Your task to perform on an android device: Show the shopping cart on newegg. Image 0: 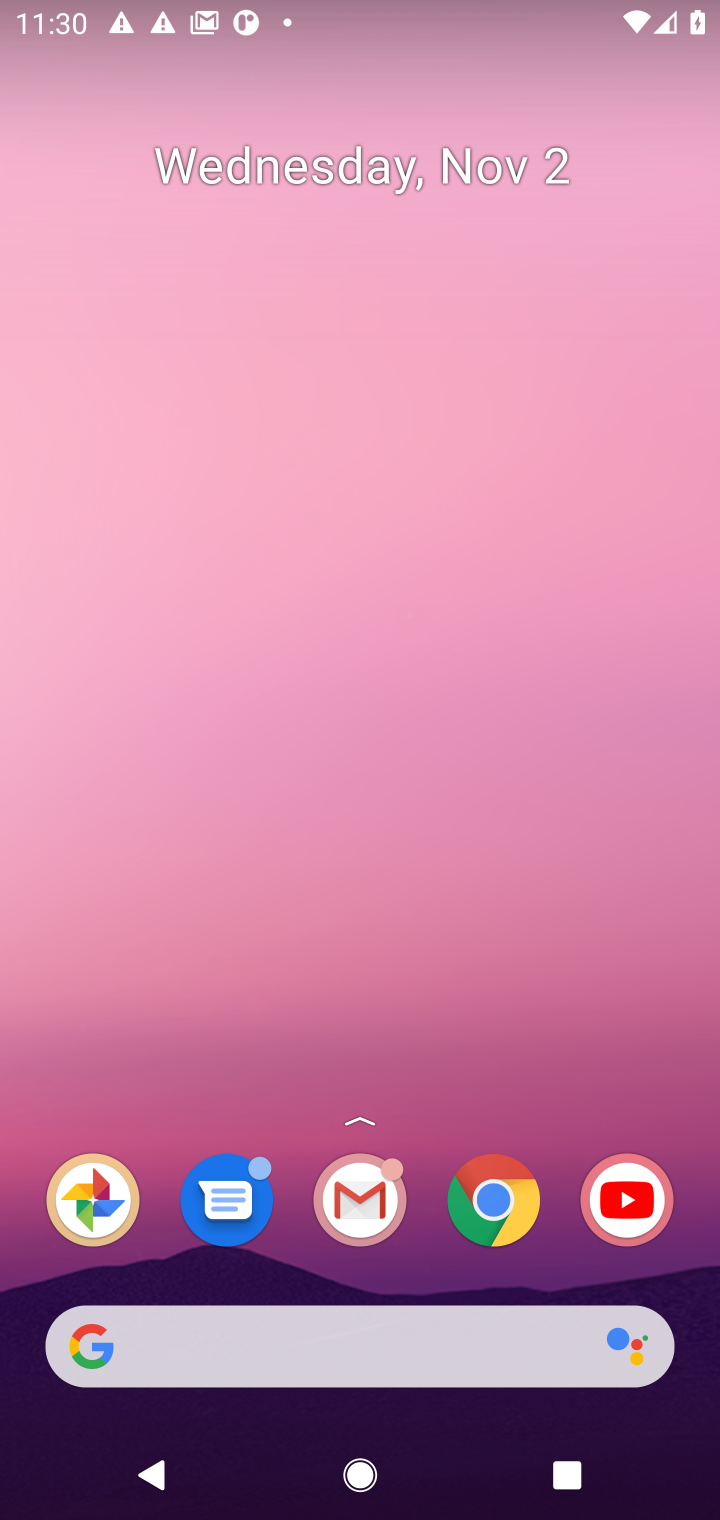
Step 0: click (499, 1188)
Your task to perform on an android device: Show the shopping cart on newegg. Image 1: 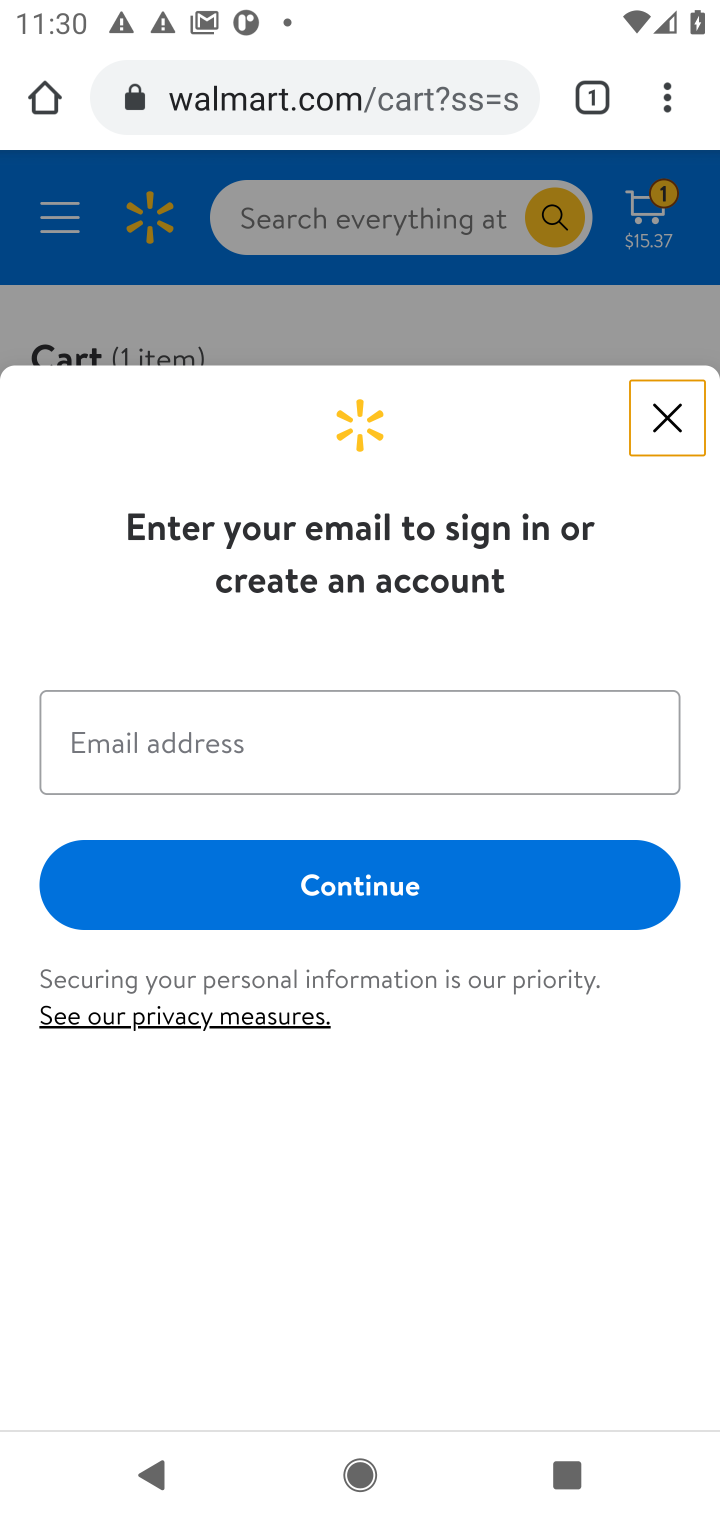
Step 1: click (56, 111)
Your task to perform on an android device: Show the shopping cart on newegg. Image 2: 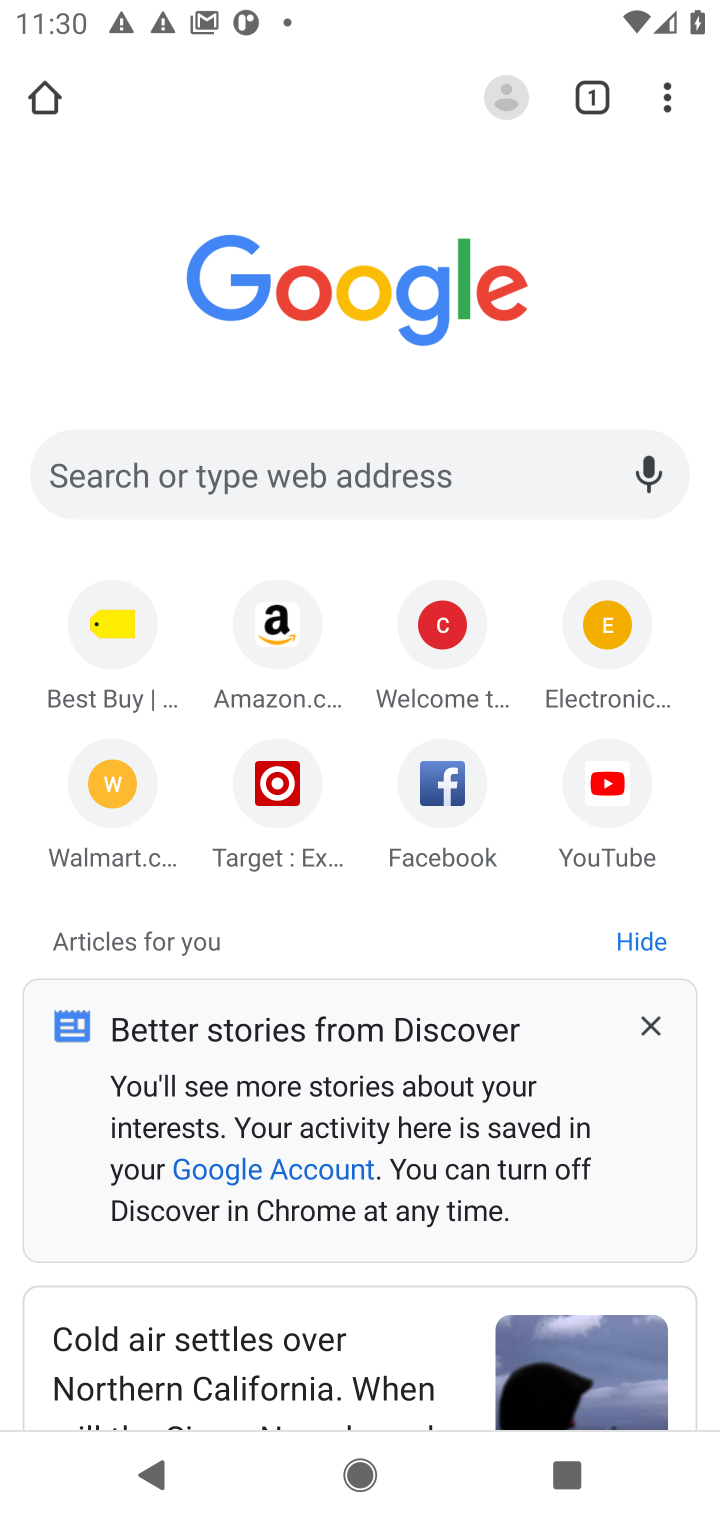
Step 2: click (524, 462)
Your task to perform on an android device: Show the shopping cart on newegg. Image 3: 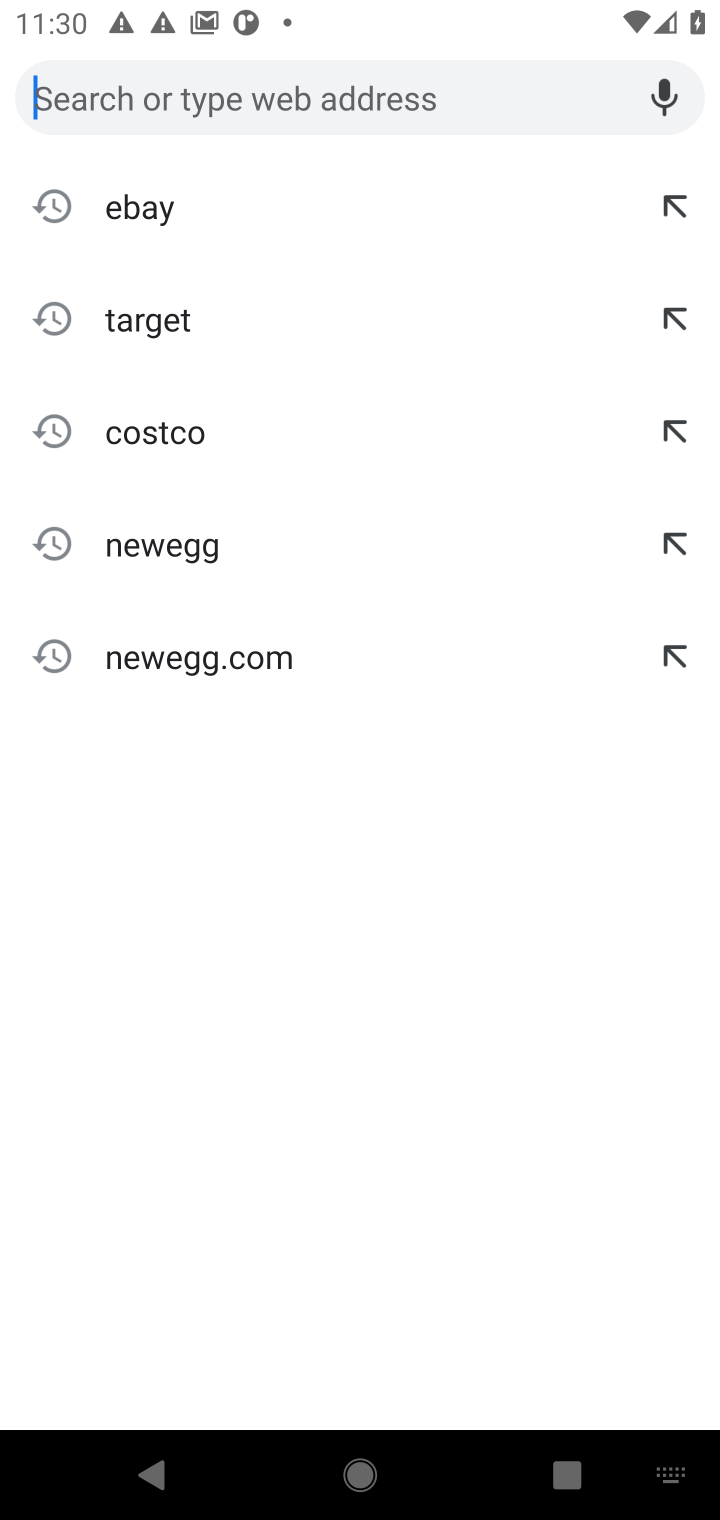
Step 3: click (291, 667)
Your task to perform on an android device: Show the shopping cart on newegg. Image 4: 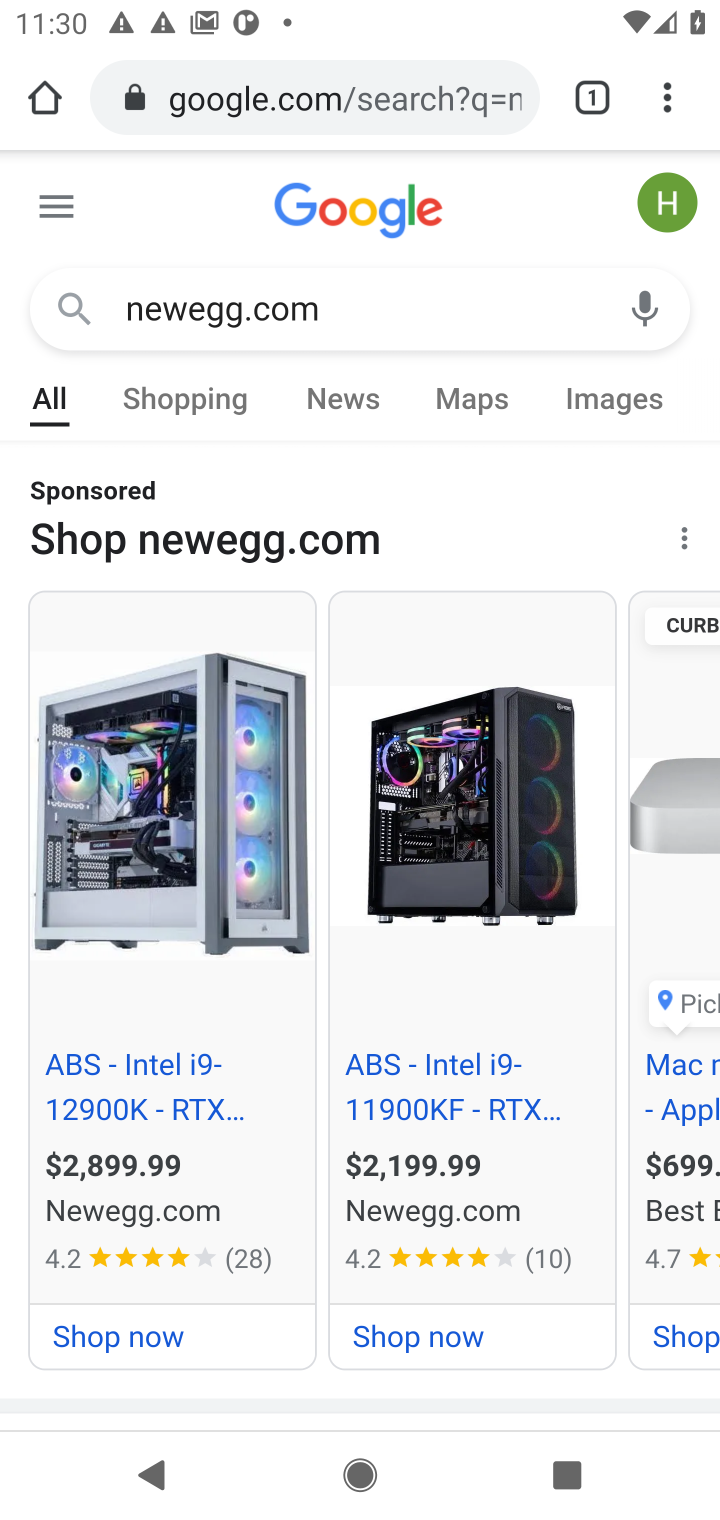
Step 4: drag from (467, 992) to (553, 300)
Your task to perform on an android device: Show the shopping cart on newegg. Image 5: 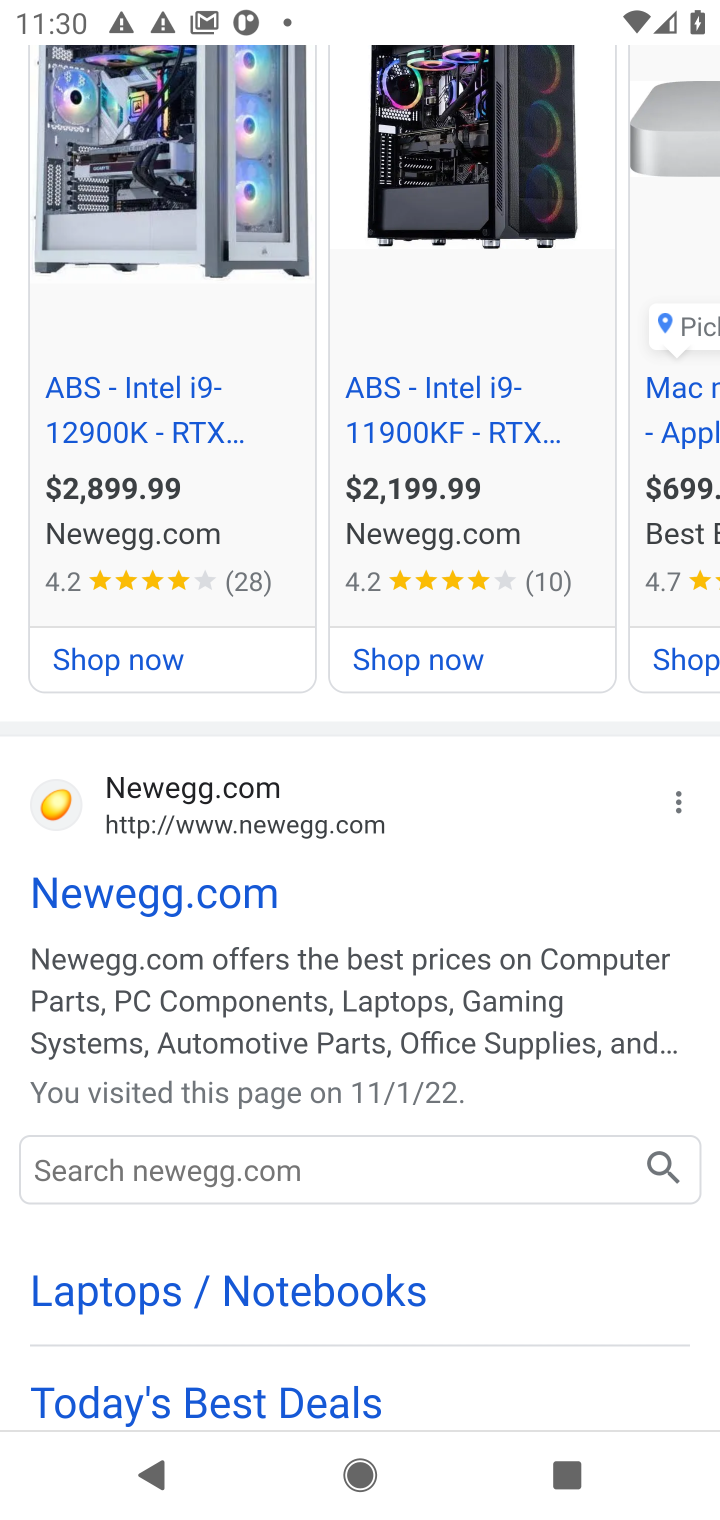
Step 5: drag from (482, 957) to (606, 411)
Your task to perform on an android device: Show the shopping cart on newegg. Image 6: 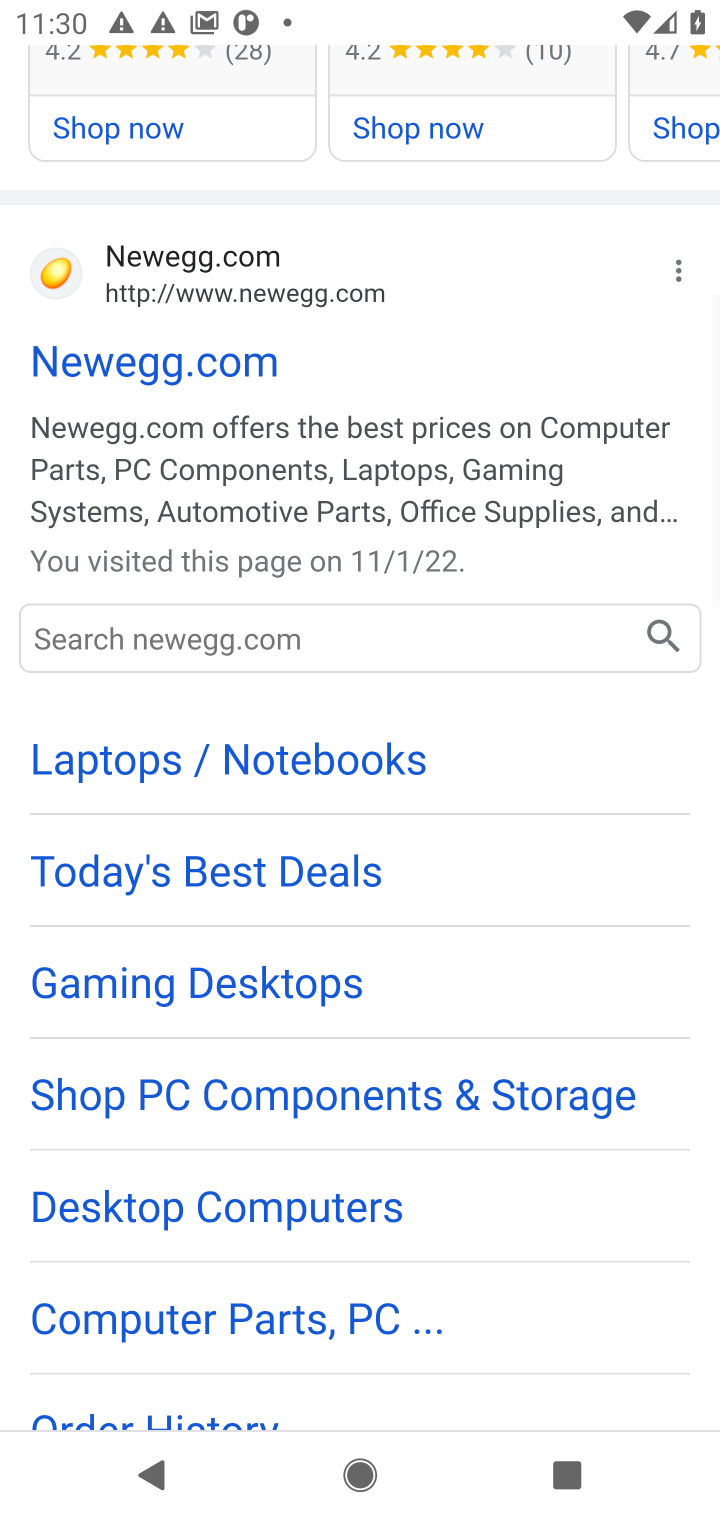
Step 6: drag from (500, 1180) to (556, 716)
Your task to perform on an android device: Show the shopping cart on newegg. Image 7: 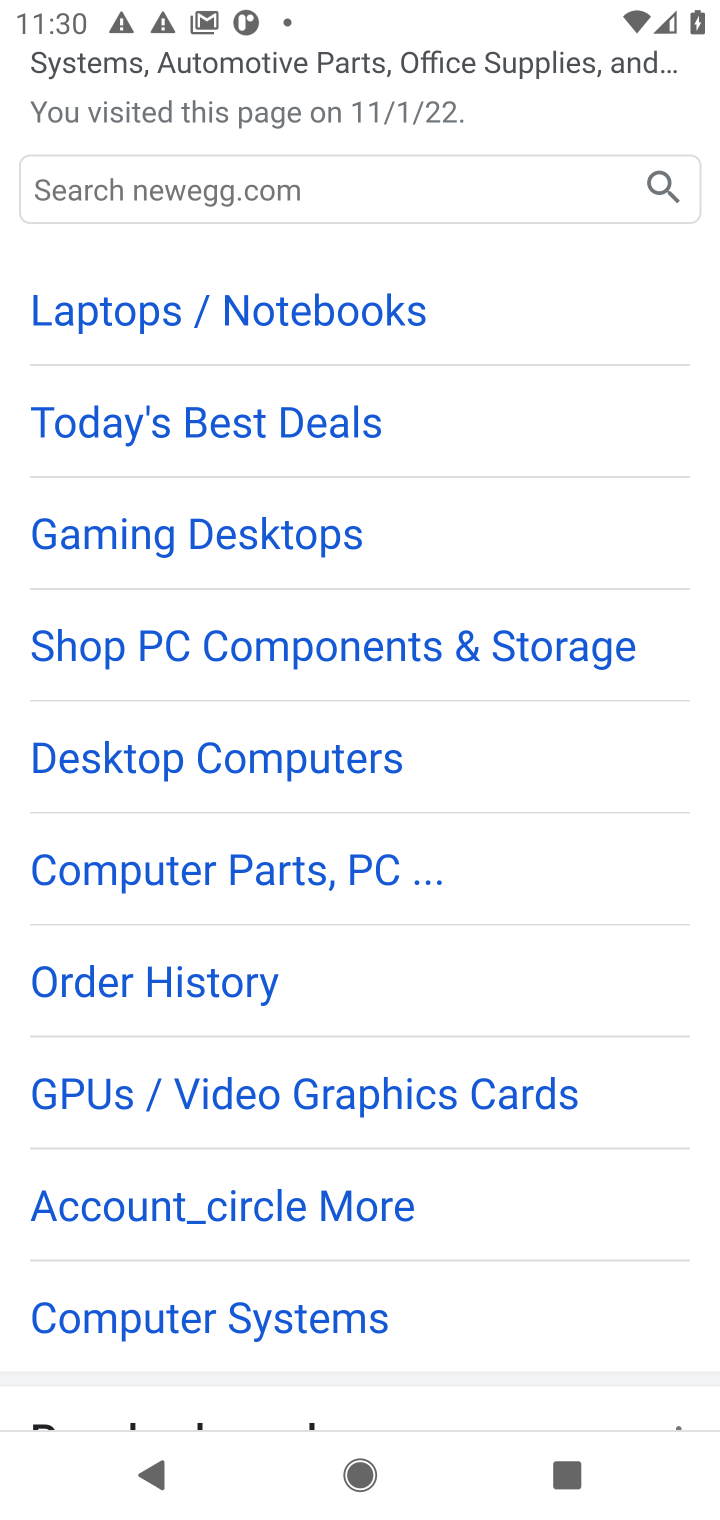
Step 7: drag from (549, 698) to (577, 560)
Your task to perform on an android device: Show the shopping cart on newegg. Image 8: 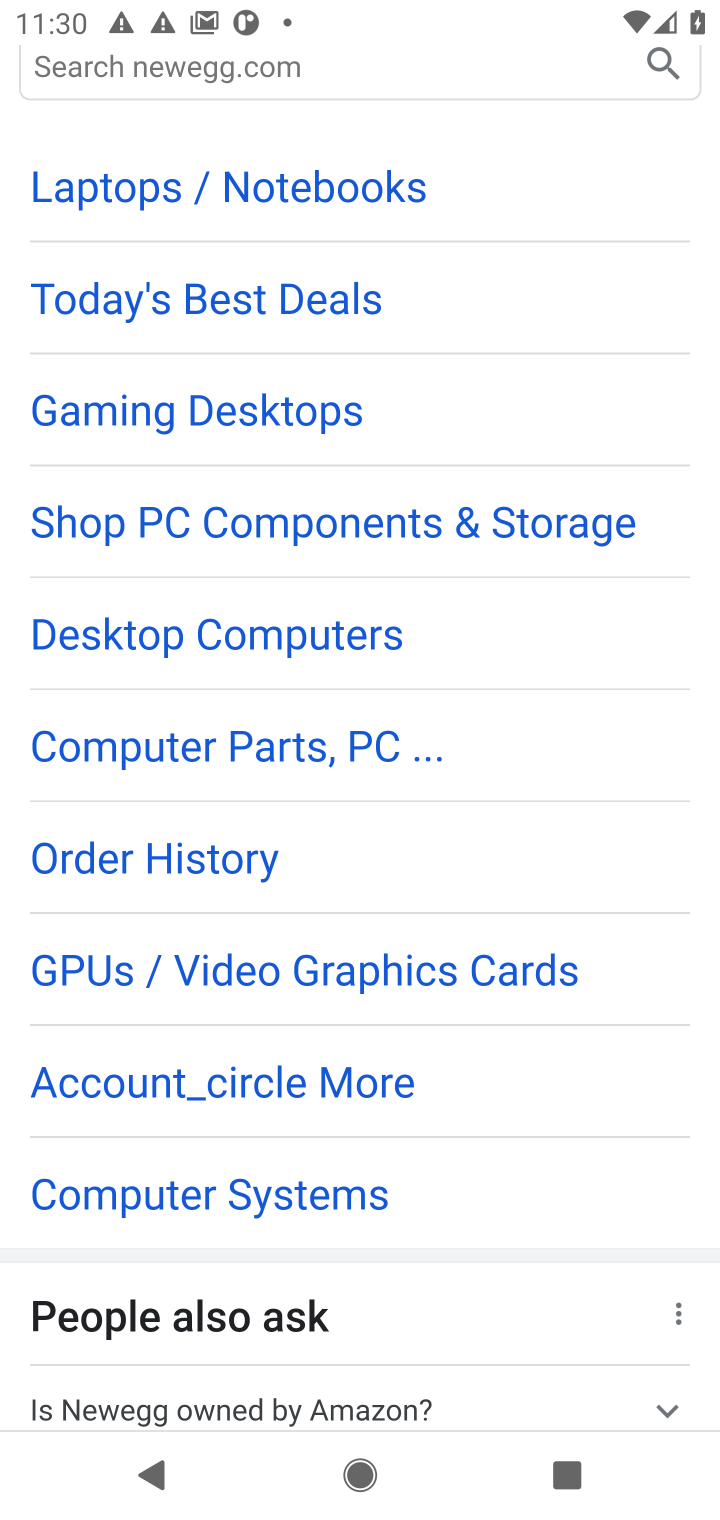
Step 8: drag from (475, 234) to (432, 996)
Your task to perform on an android device: Show the shopping cart on newegg. Image 9: 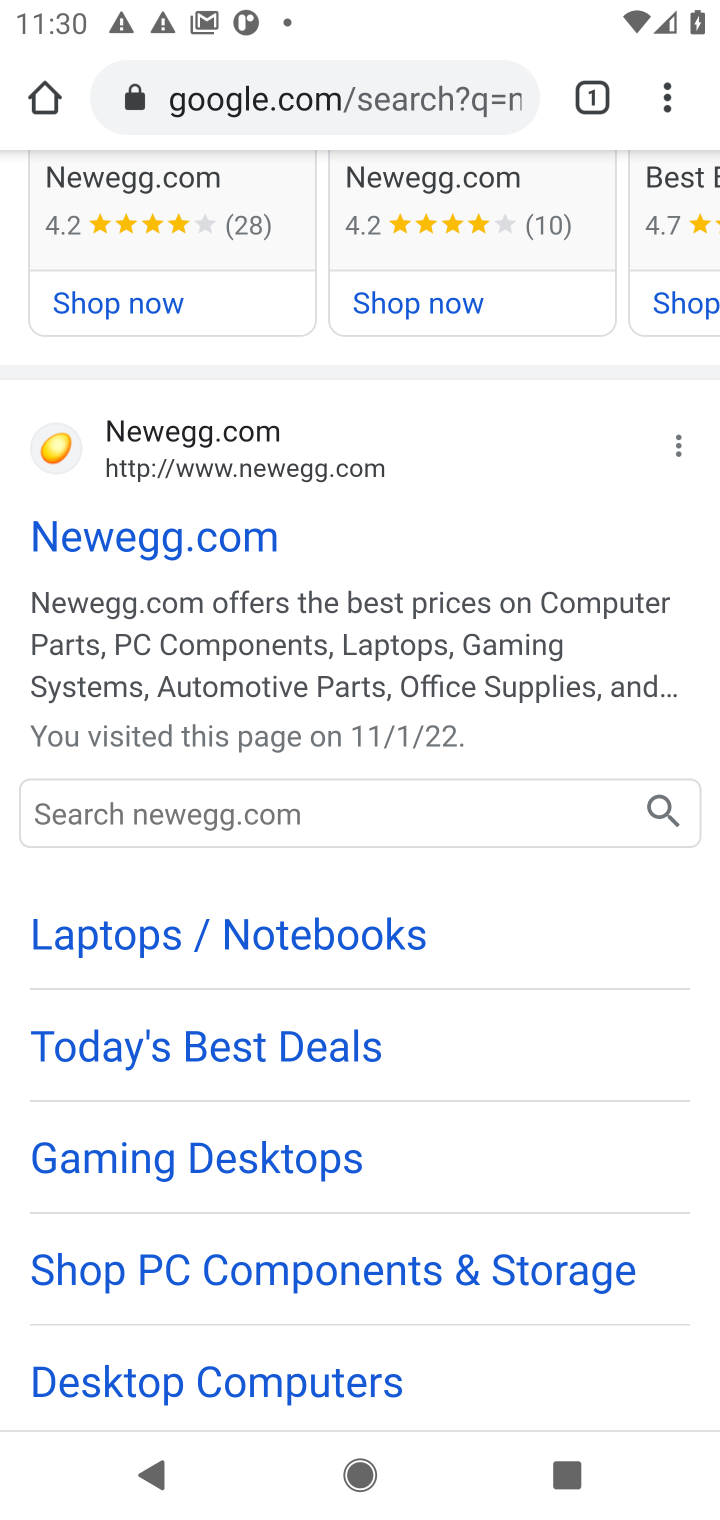
Step 9: click (282, 465)
Your task to perform on an android device: Show the shopping cart on newegg. Image 10: 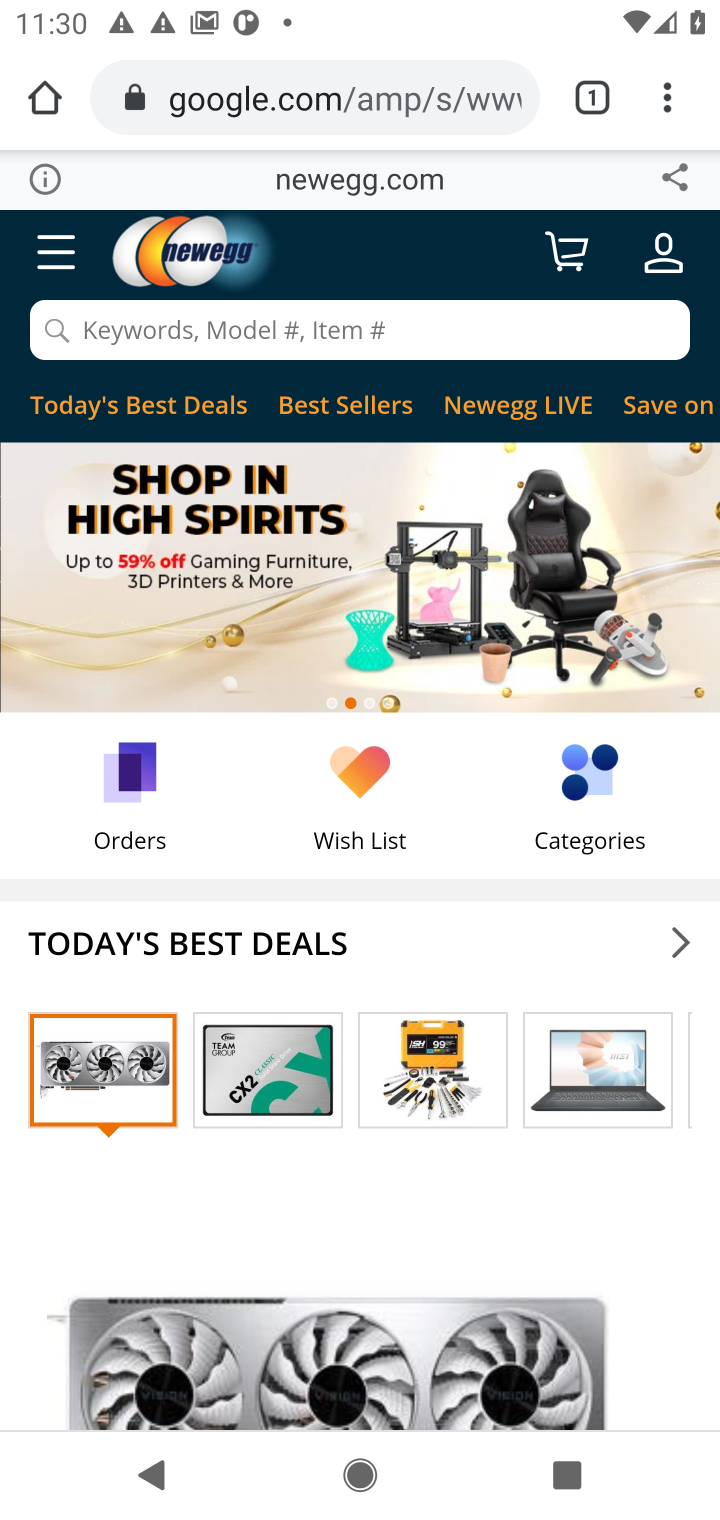
Step 10: click (557, 254)
Your task to perform on an android device: Show the shopping cart on newegg. Image 11: 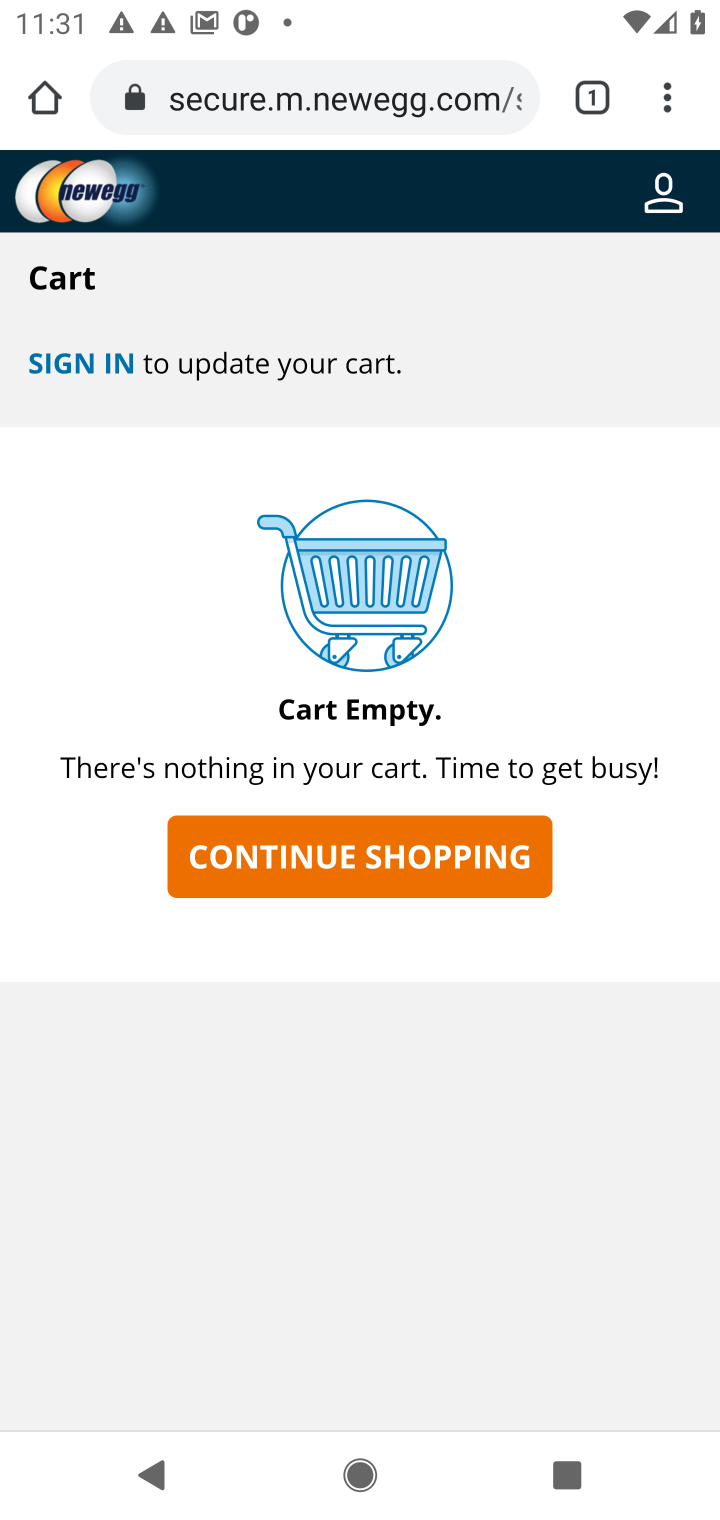
Step 11: task complete